Your task to perform on an android device: Go to notification settings Image 0: 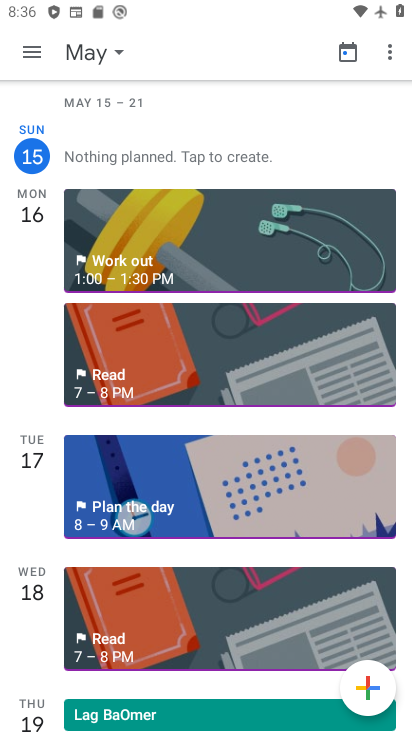
Step 0: press home button
Your task to perform on an android device: Go to notification settings Image 1: 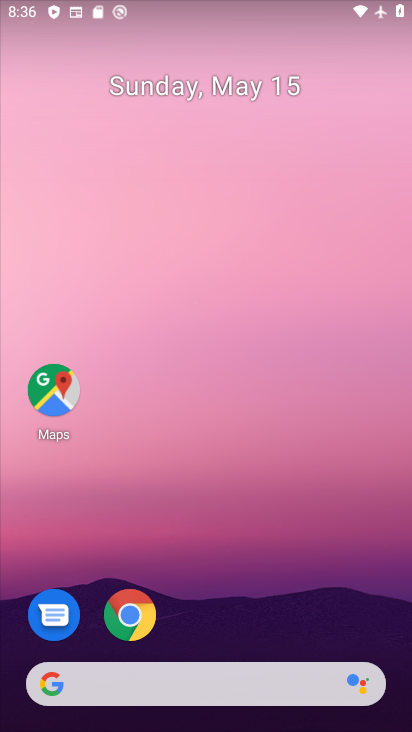
Step 1: drag from (159, 667) to (195, 274)
Your task to perform on an android device: Go to notification settings Image 2: 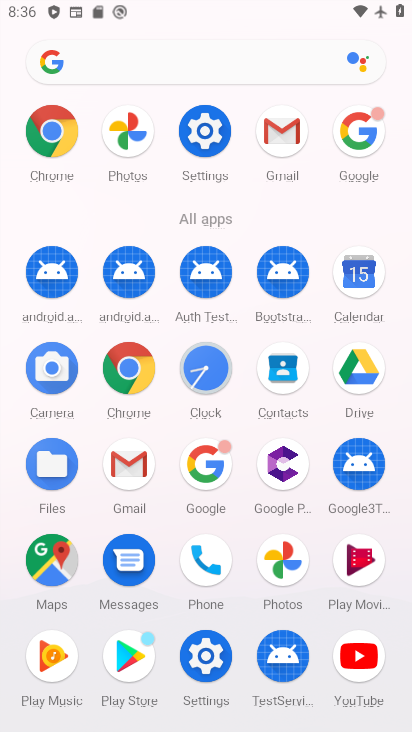
Step 2: click (210, 654)
Your task to perform on an android device: Go to notification settings Image 3: 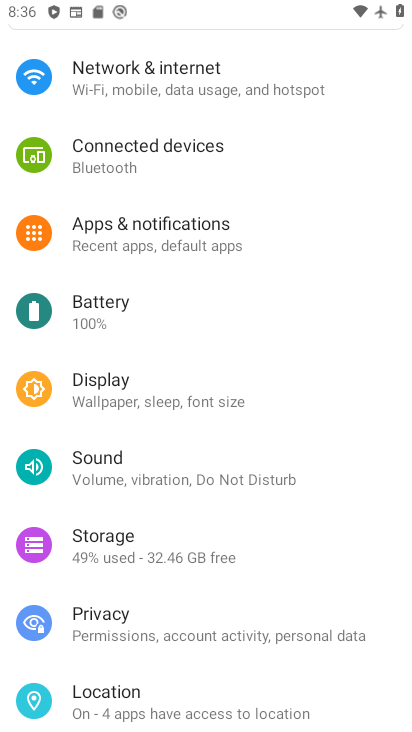
Step 3: click (139, 233)
Your task to perform on an android device: Go to notification settings Image 4: 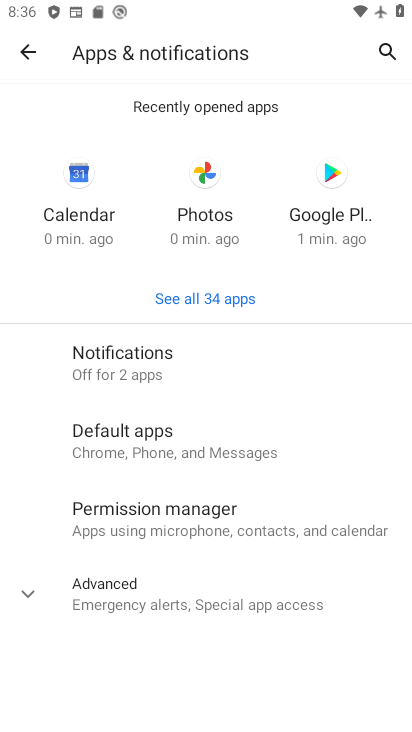
Step 4: click (98, 587)
Your task to perform on an android device: Go to notification settings Image 5: 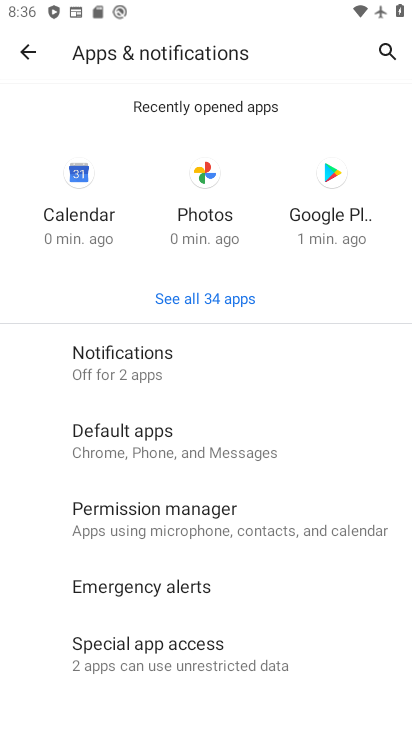
Step 5: task complete